Your task to perform on an android device: Go to Reddit.com Image 0: 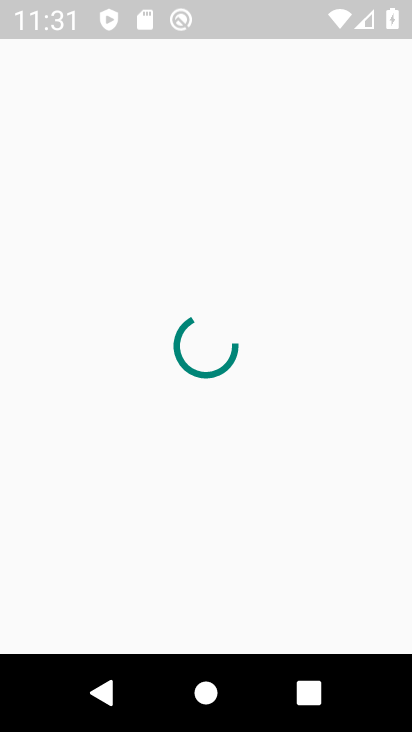
Step 0: drag from (397, 600) to (383, 457)
Your task to perform on an android device: Go to Reddit.com Image 1: 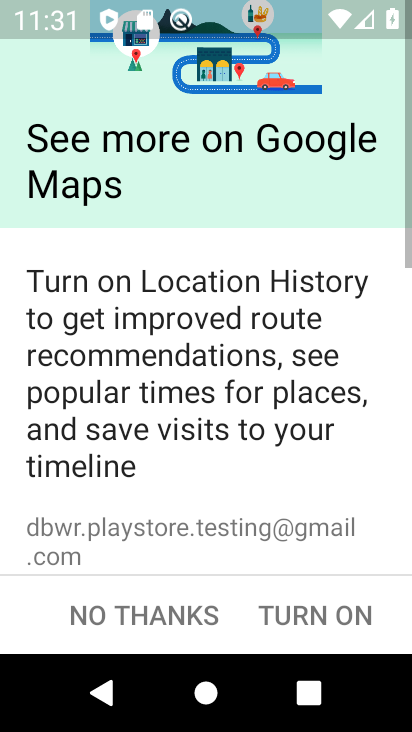
Step 1: press home button
Your task to perform on an android device: Go to Reddit.com Image 2: 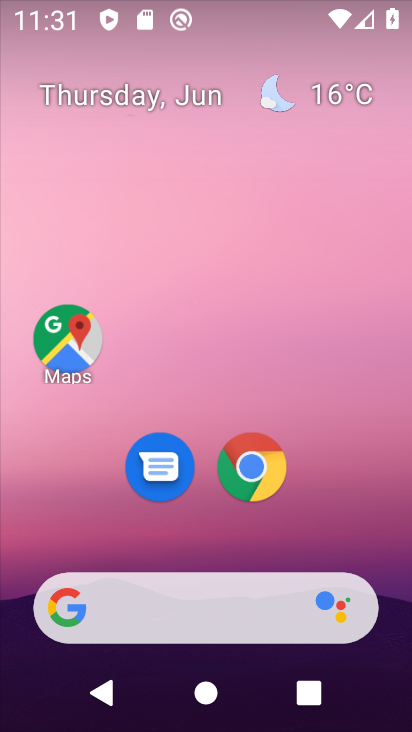
Step 2: click (251, 468)
Your task to perform on an android device: Go to Reddit.com Image 3: 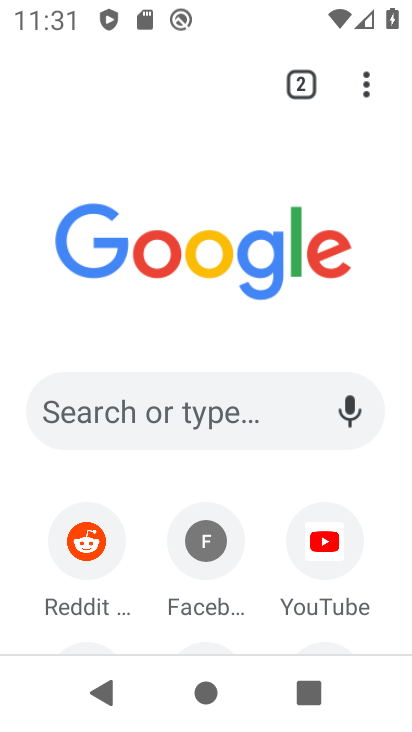
Step 3: click (136, 402)
Your task to perform on an android device: Go to Reddit.com Image 4: 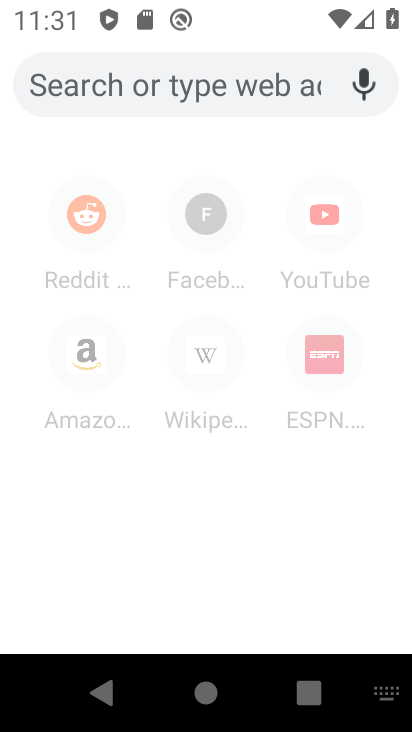
Step 4: type "reddit.com"
Your task to perform on an android device: Go to Reddit.com Image 5: 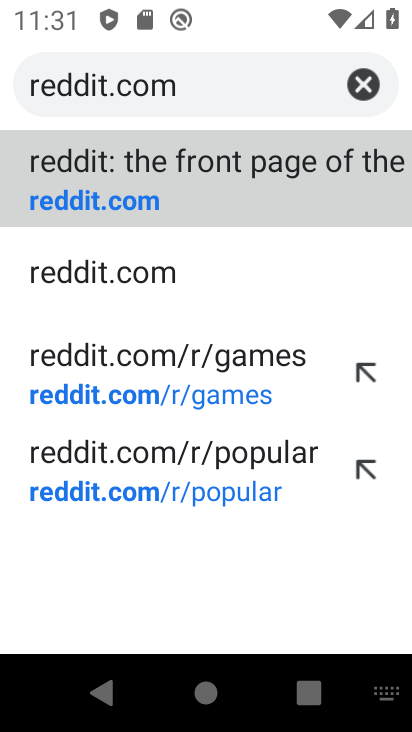
Step 5: click (93, 197)
Your task to perform on an android device: Go to Reddit.com Image 6: 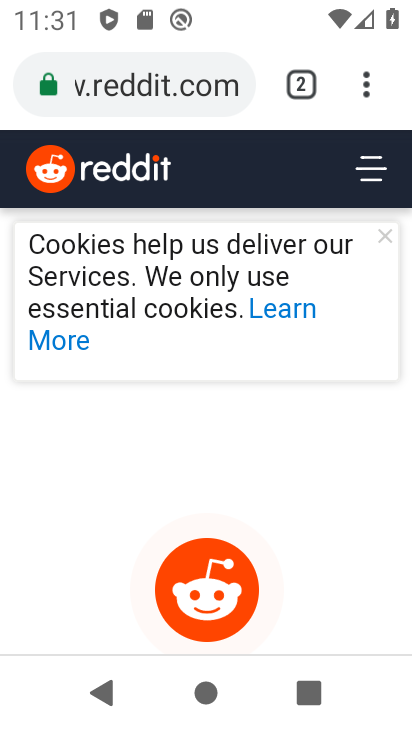
Step 6: task complete